Your task to perform on an android device: turn off wifi Image 0: 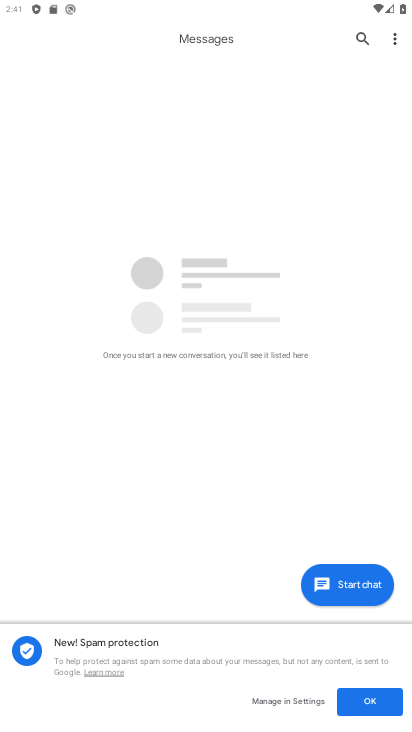
Step 0: press home button
Your task to perform on an android device: turn off wifi Image 1: 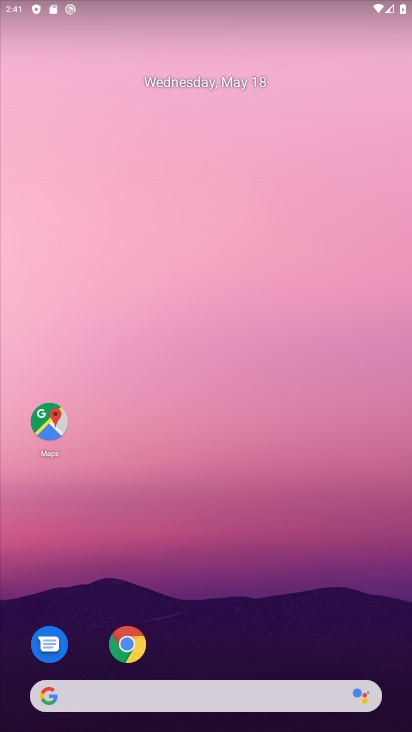
Step 1: drag from (170, 687) to (258, 161)
Your task to perform on an android device: turn off wifi Image 2: 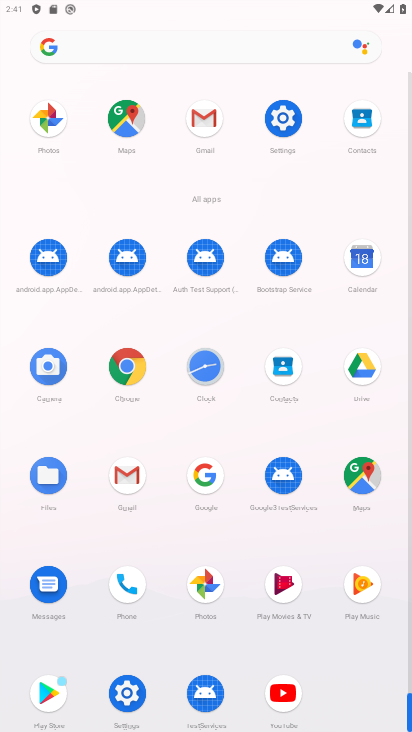
Step 2: click (279, 117)
Your task to perform on an android device: turn off wifi Image 3: 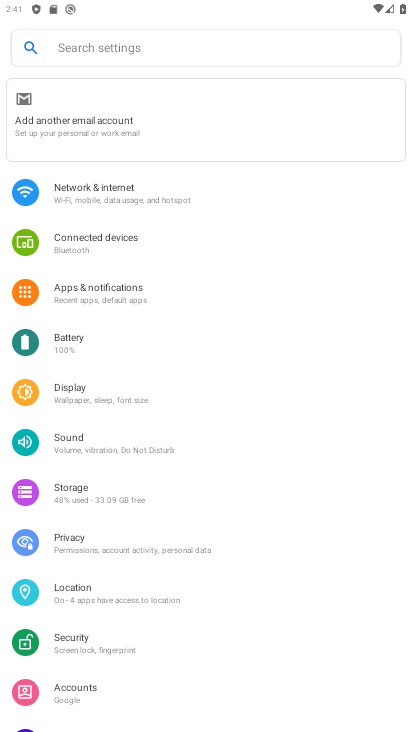
Step 3: click (128, 194)
Your task to perform on an android device: turn off wifi Image 4: 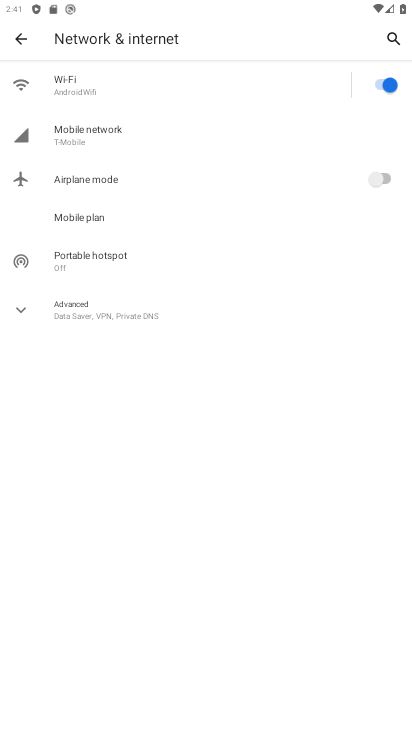
Step 4: click (380, 86)
Your task to perform on an android device: turn off wifi Image 5: 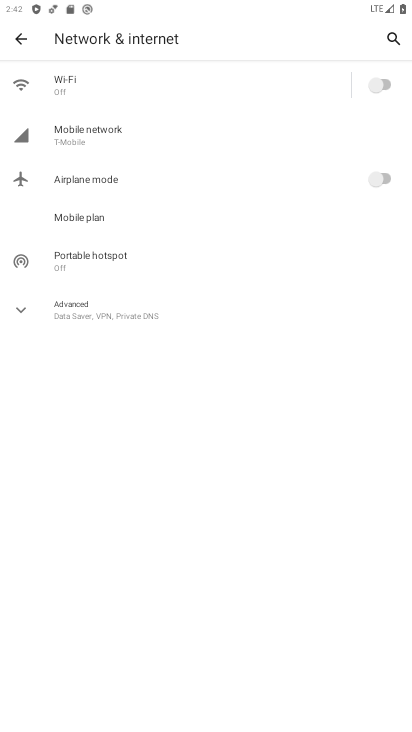
Step 5: task complete